Your task to perform on an android device: turn off notifications settings in the gmail app Image 0: 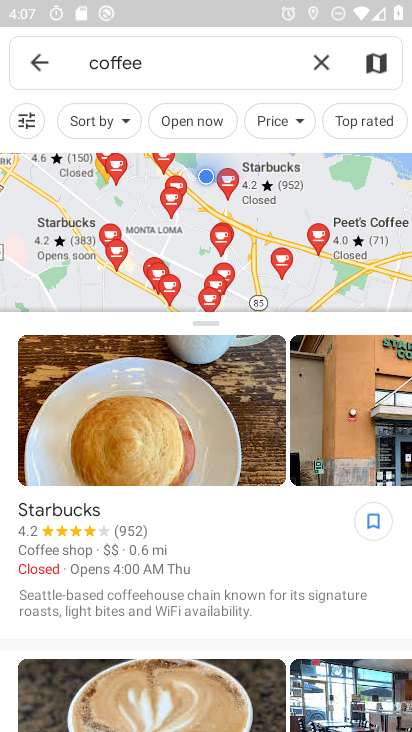
Step 0: press home button
Your task to perform on an android device: turn off notifications settings in the gmail app Image 1: 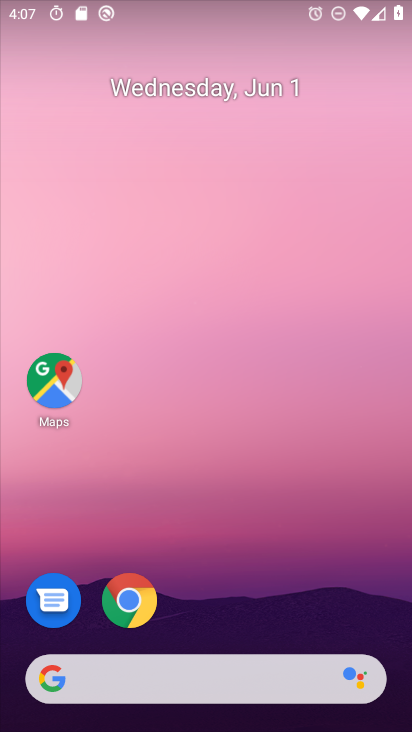
Step 1: drag from (224, 603) to (211, 103)
Your task to perform on an android device: turn off notifications settings in the gmail app Image 2: 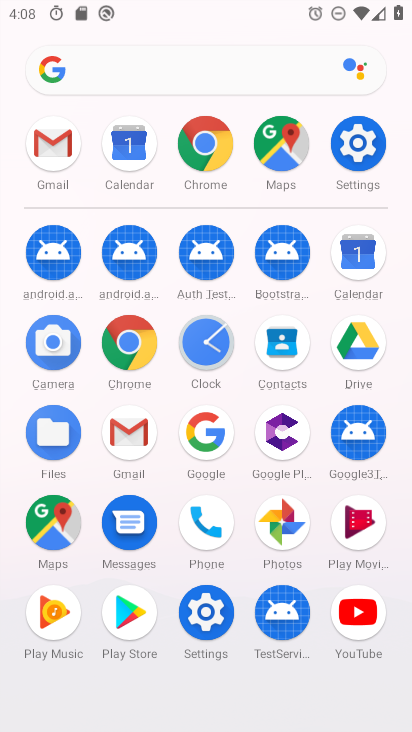
Step 2: click (134, 439)
Your task to perform on an android device: turn off notifications settings in the gmail app Image 3: 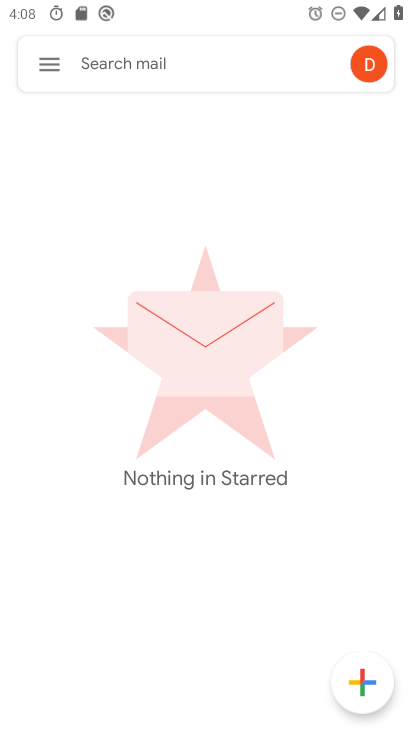
Step 3: press home button
Your task to perform on an android device: turn off notifications settings in the gmail app Image 4: 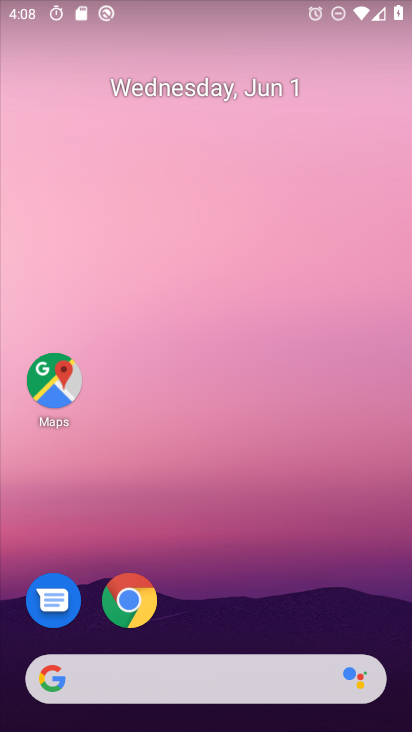
Step 4: drag from (194, 630) to (133, 104)
Your task to perform on an android device: turn off notifications settings in the gmail app Image 5: 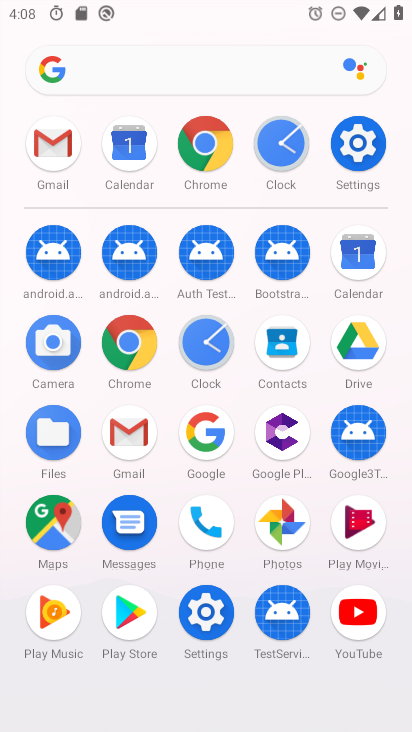
Step 5: click (121, 441)
Your task to perform on an android device: turn off notifications settings in the gmail app Image 6: 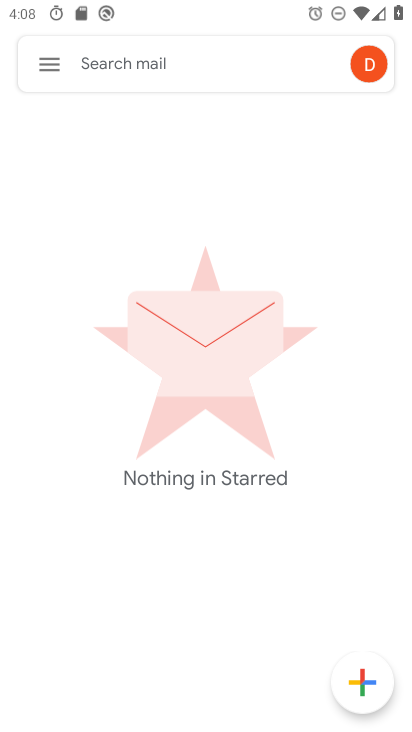
Step 6: click (44, 73)
Your task to perform on an android device: turn off notifications settings in the gmail app Image 7: 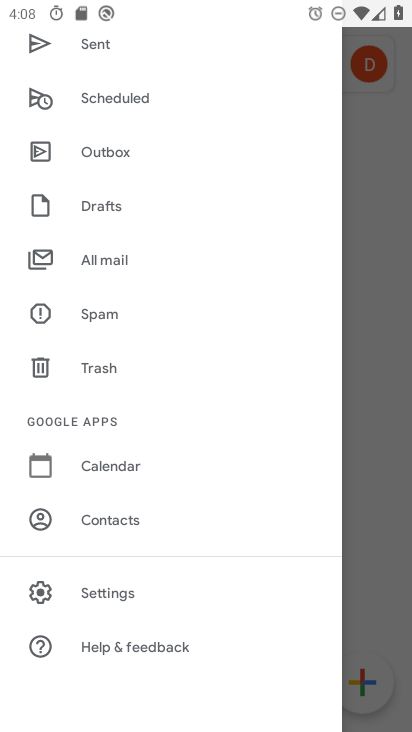
Step 7: click (105, 603)
Your task to perform on an android device: turn off notifications settings in the gmail app Image 8: 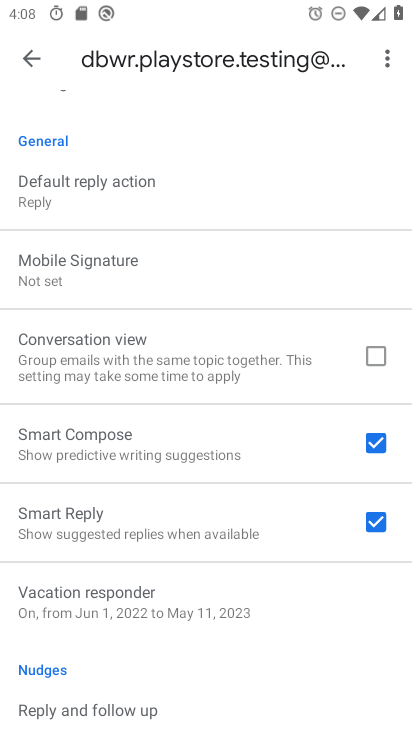
Step 8: drag from (166, 234) to (156, 589)
Your task to perform on an android device: turn off notifications settings in the gmail app Image 9: 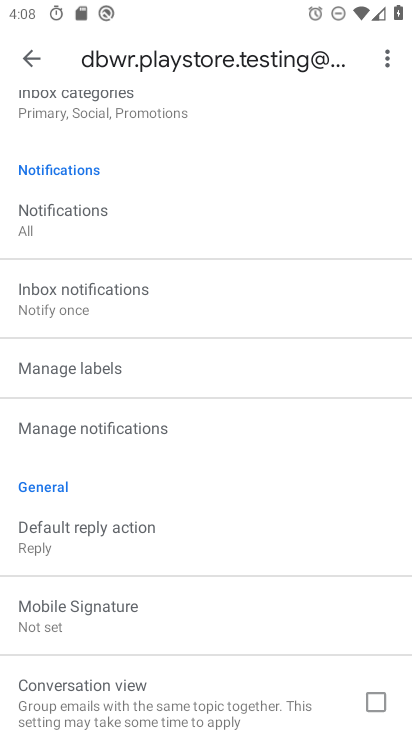
Step 9: click (134, 438)
Your task to perform on an android device: turn off notifications settings in the gmail app Image 10: 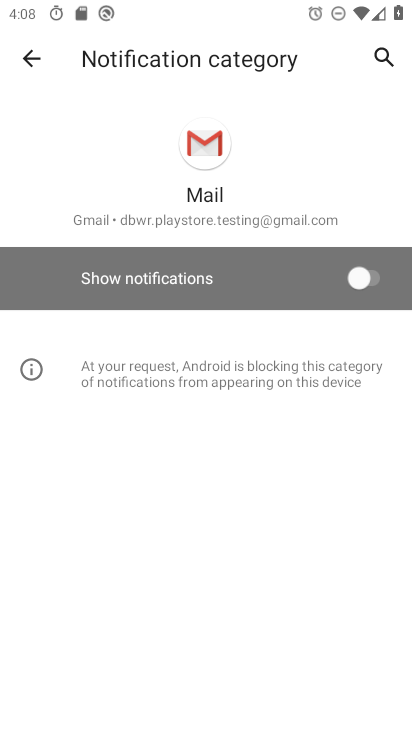
Step 10: task complete